Your task to perform on an android device: change the upload size in google photos Image 0: 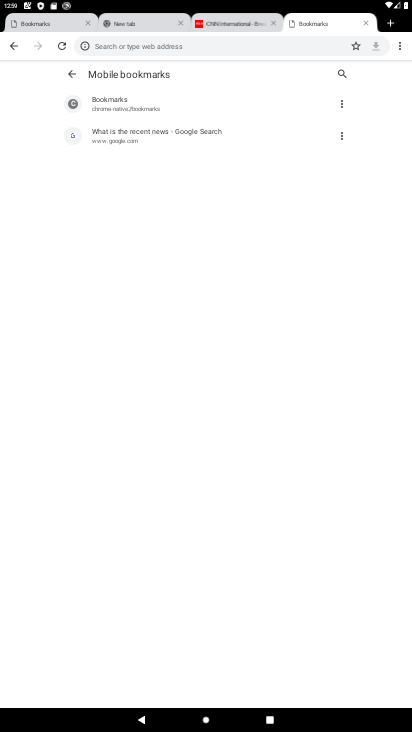
Step 0: press home button
Your task to perform on an android device: change the upload size in google photos Image 1: 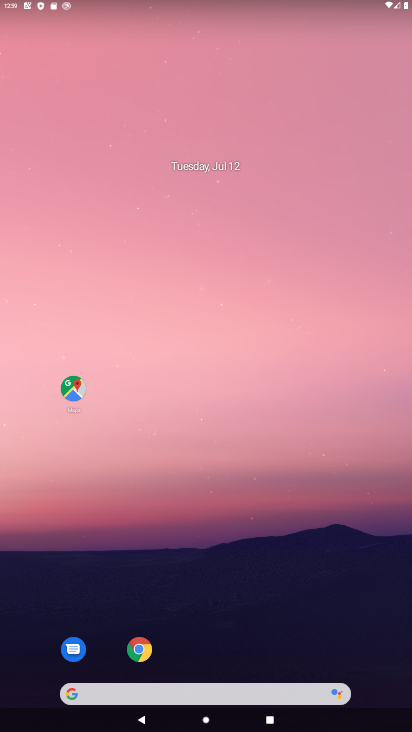
Step 1: drag from (265, 635) to (214, 189)
Your task to perform on an android device: change the upload size in google photos Image 2: 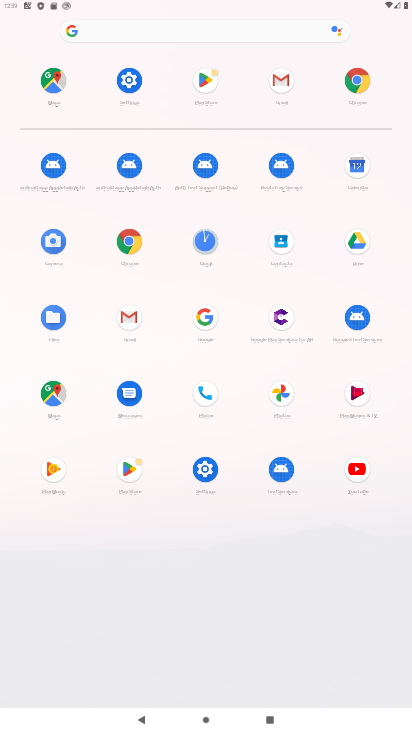
Step 2: click (284, 391)
Your task to perform on an android device: change the upload size in google photos Image 3: 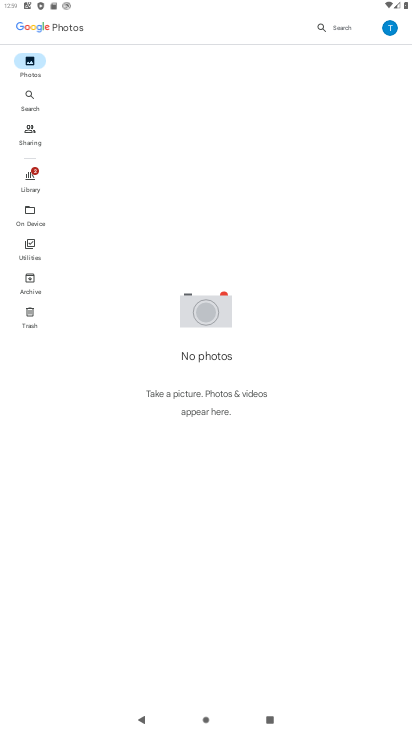
Step 3: click (31, 183)
Your task to perform on an android device: change the upload size in google photos Image 4: 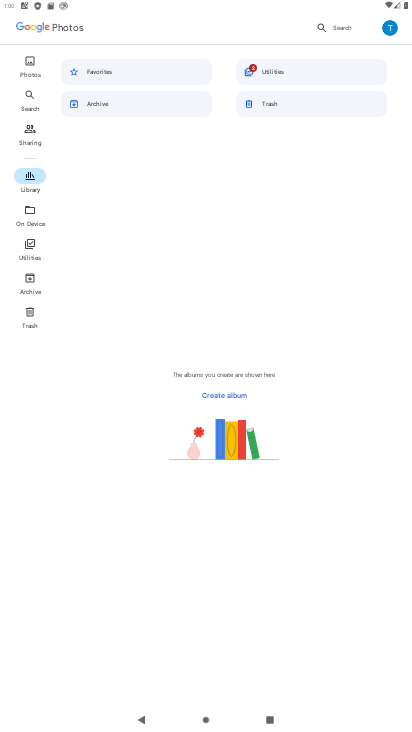
Step 4: click (391, 33)
Your task to perform on an android device: change the upload size in google photos Image 5: 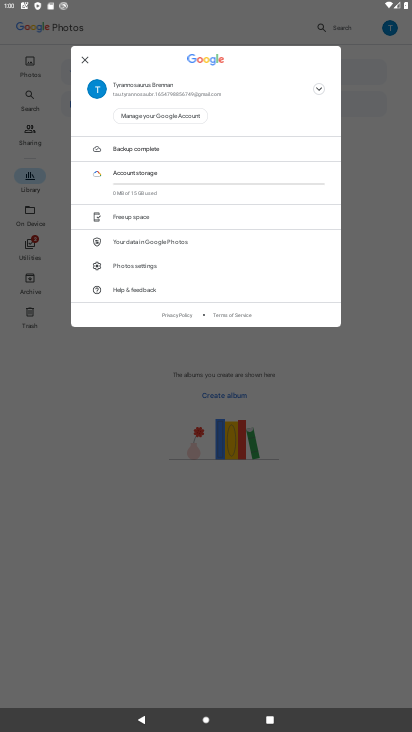
Step 5: click (221, 261)
Your task to perform on an android device: change the upload size in google photos Image 6: 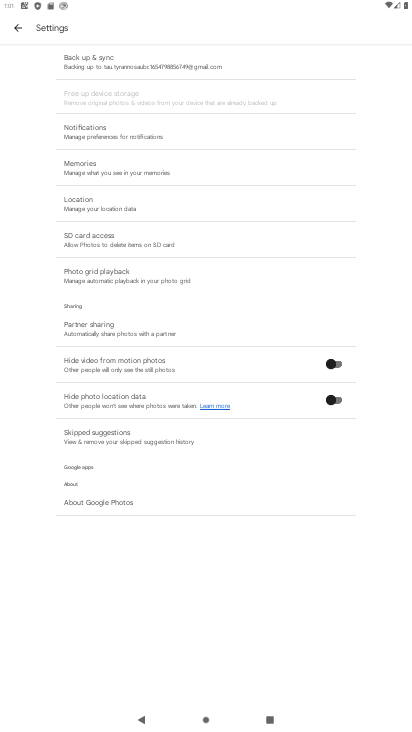
Step 6: task complete